Your task to perform on an android device: add a contact in the contacts app Image 0: 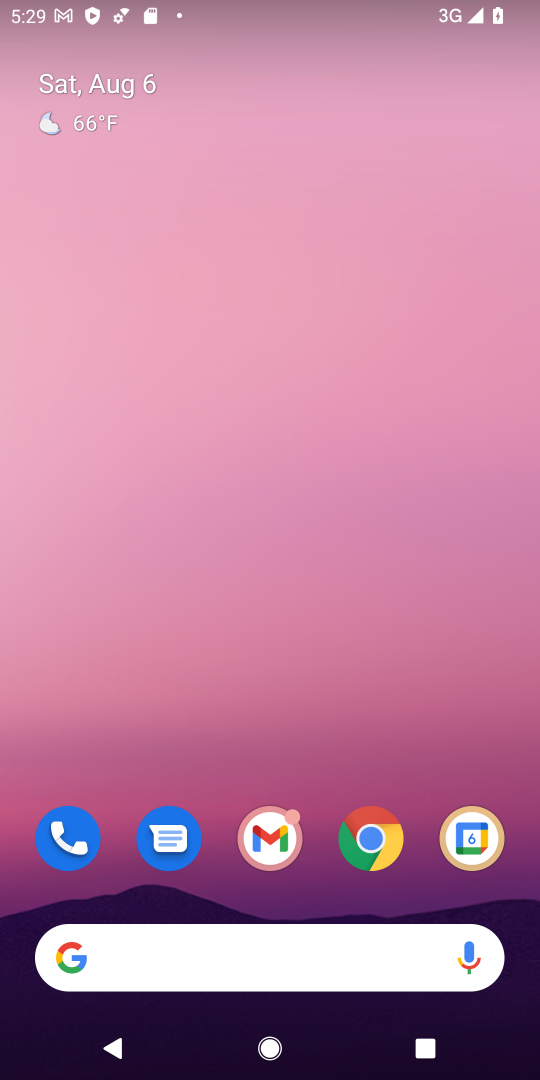
Step 0: drag from (268, 735) to (260, 168)
Your task to perform on an android device: add a contact in the contacts app Image 1: 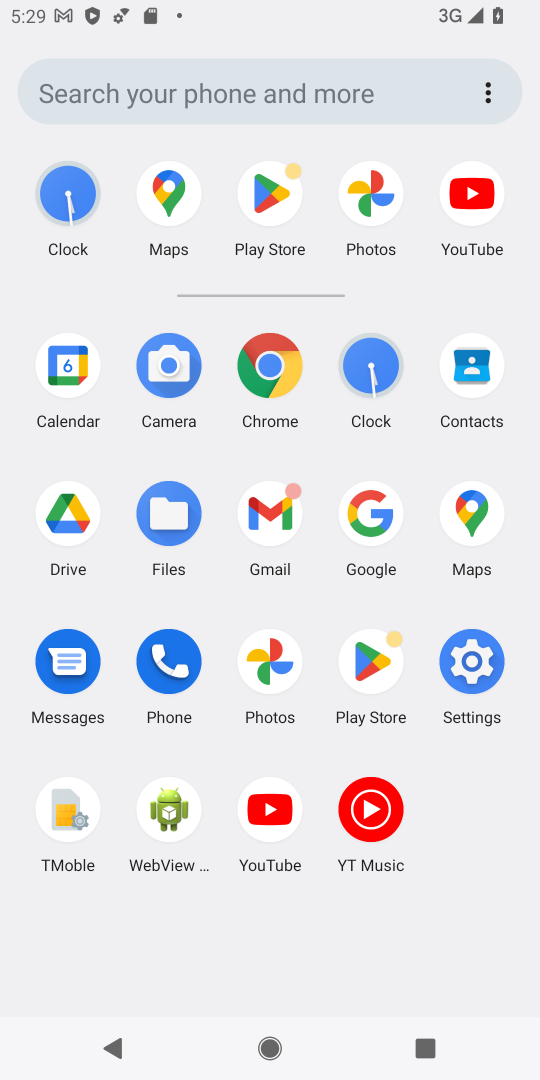
Step 1: click (484, 382)
Your task to perform on an android device: add a contact in the contacts app Image 2: 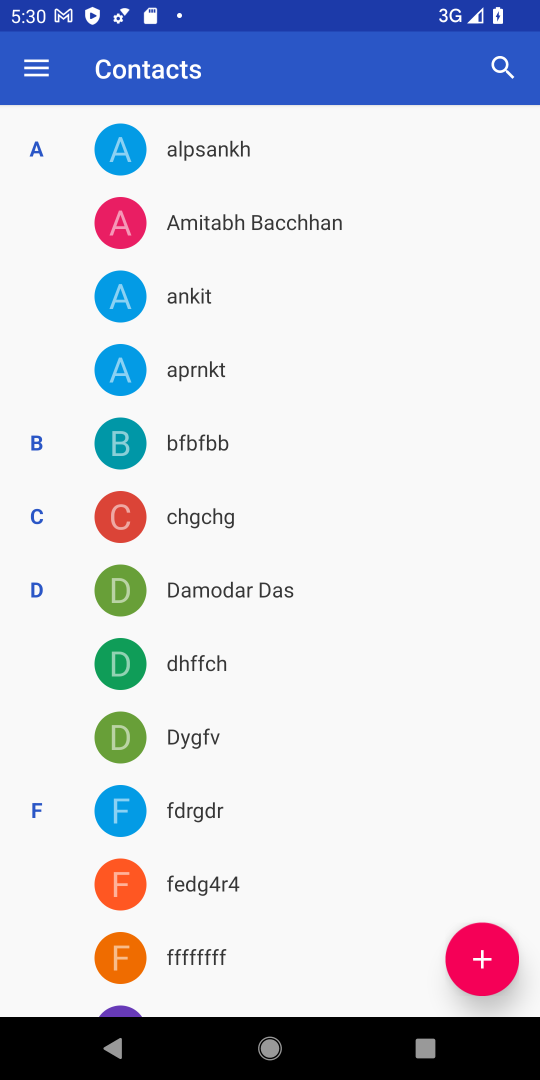
Step 2: click (474, 946)
Your task to perform on an android device: add a contact in the contacts app Image 3: 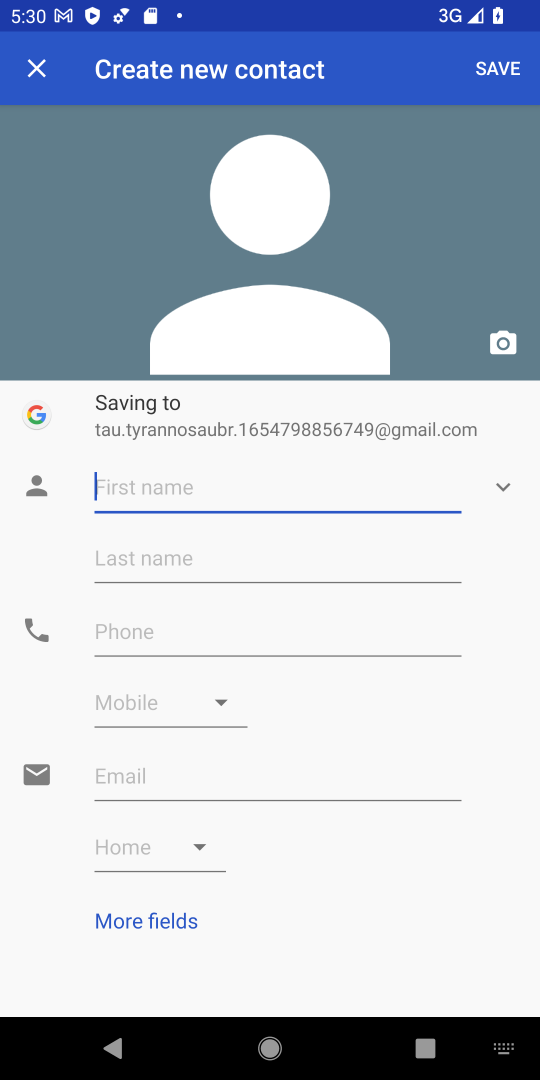
Step 3: type "gfgfg"
Your task to perform on an android device: add a contact in the contacts app Image 4: 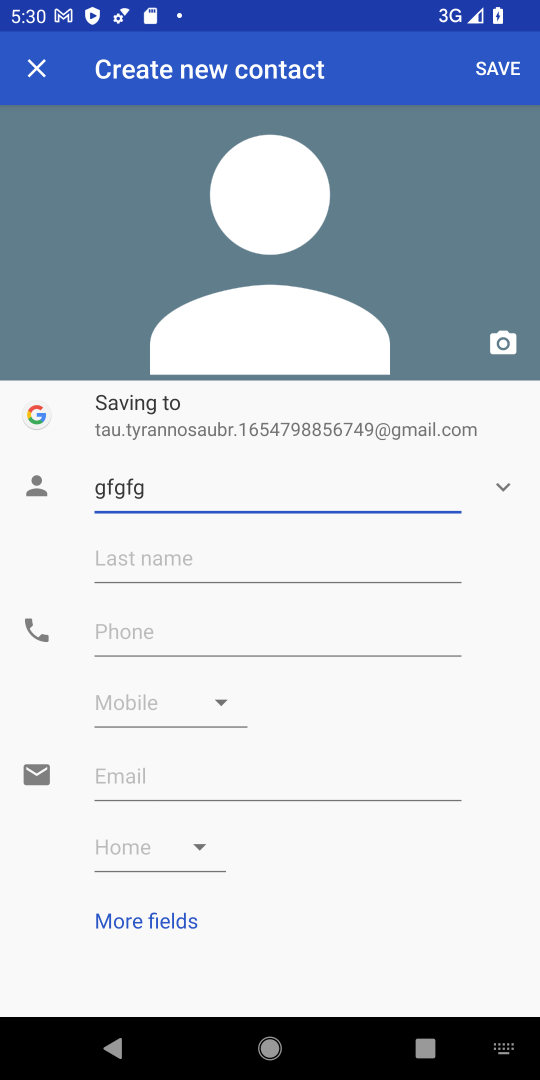
Step 4: click (521, 63)
Your task to perform on an android device: add a contact in the contacts app Image 5: 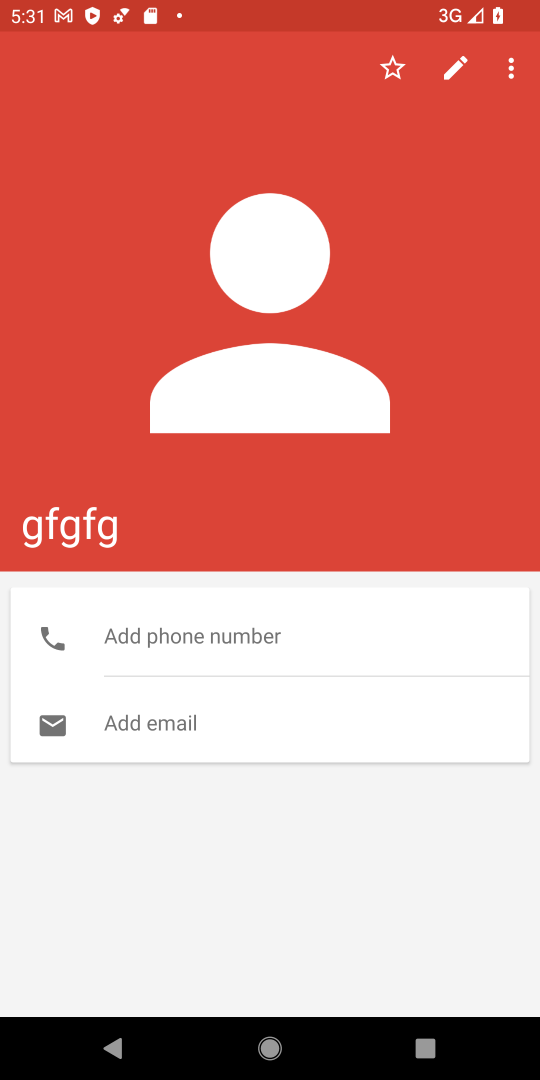
Step 5: task complete